Your task to perform on an android device: Search for sushi restaurants on Maps Image 0: 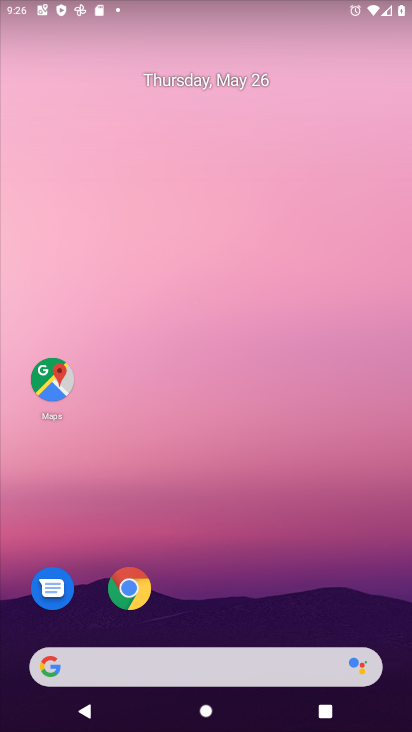
Step 0: drag from (355, 609) to (282, 54)
Your task to perform on an android device: Search for sushi restaurants on Maps Image 1: 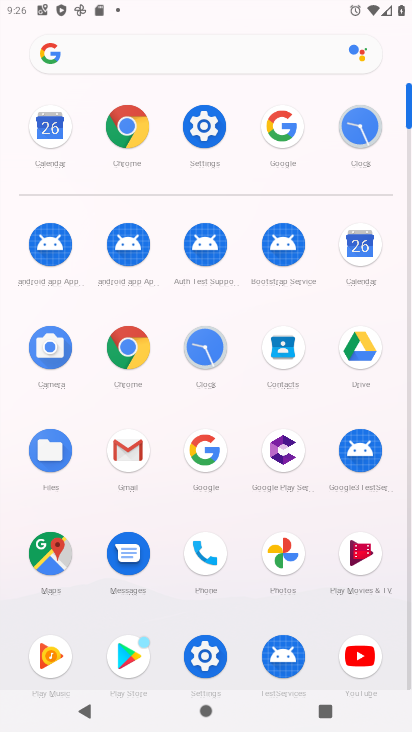
Step 1: click (46, 549)
Your task to perform on an android device: Search for sushi restaurants on Maps Image 2: 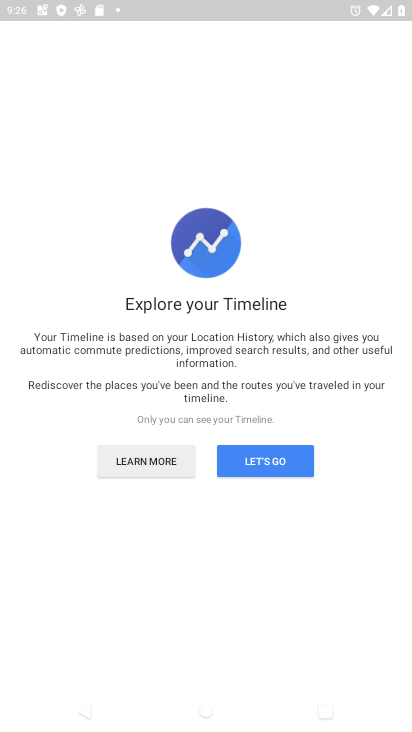
Step 2: press back button
Your task to perform on an android device: Search for sushi restaurants on Maps Image 3: 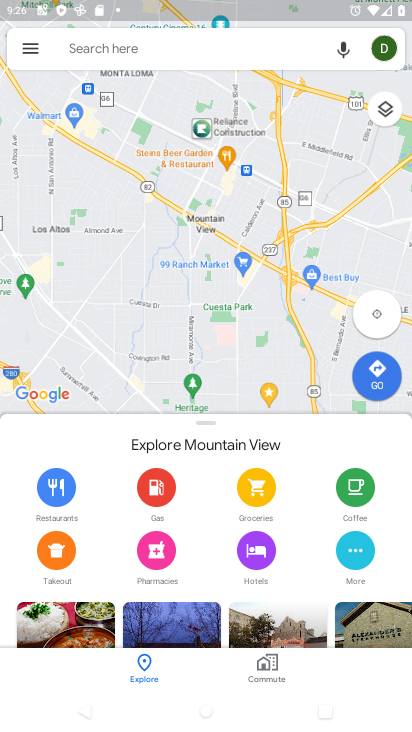
Step 3: click (117, 51)
Your task to perform on an android device: Search for sushi restaurants on Maps Image 4: 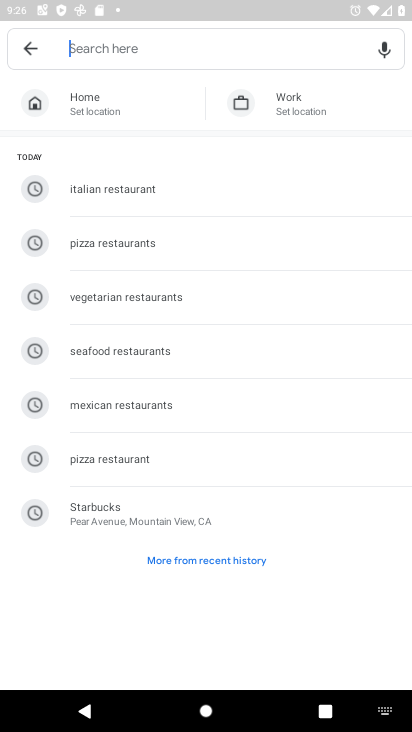
Step 4: click (181, 558)
Your task to perform on an android device: Search for sushi restaurants on Maps Image 5: 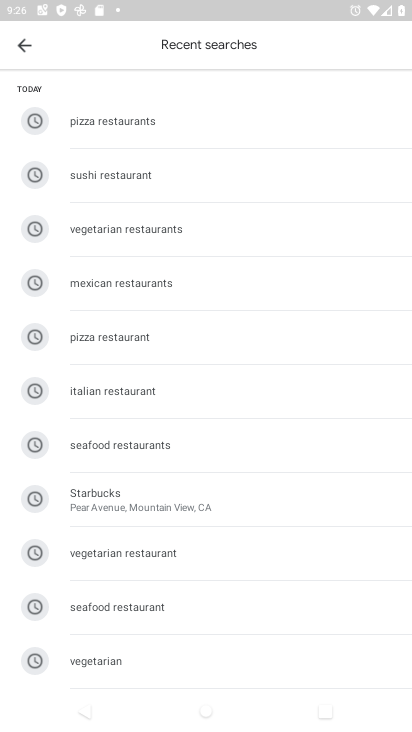
Step 5: drag from (136, 592) to (175, 460)
Your task to perform on an android device: Search for sushi restaurants on Maps Image 6: 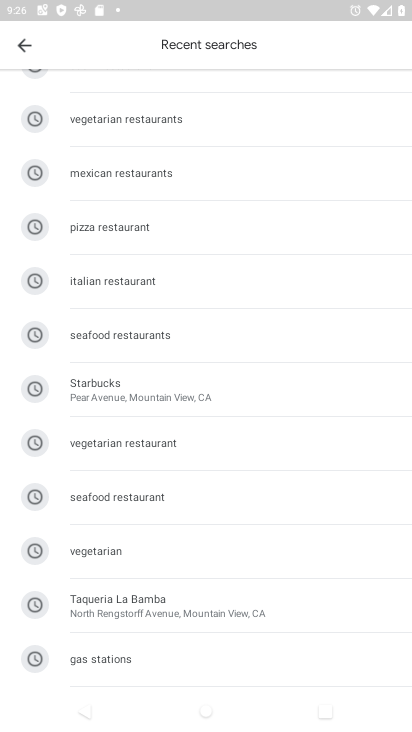
Step 6: drag from (197, 321) to (197, 202)
Your task to perform on an android device: Search for sushi restaurants on Maps Image 7: 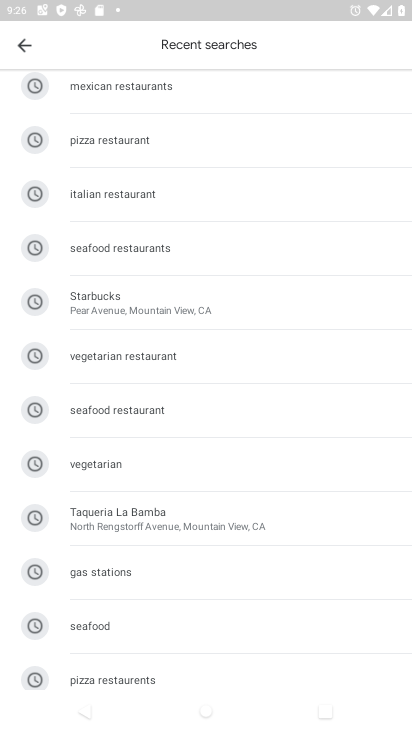
Step 7: drag from (100, 618) to (204, 219)
Your task to perform on an android device: Search for sushi restaurants on Maps Image 8: 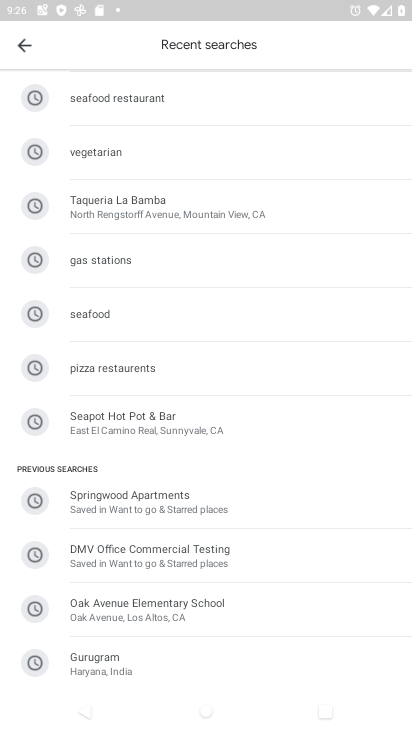
Step 8: drag from (191, 173) to (195, 691)
Your task to perform on an android device: Search for sushi restaurants on Maps Image 9: 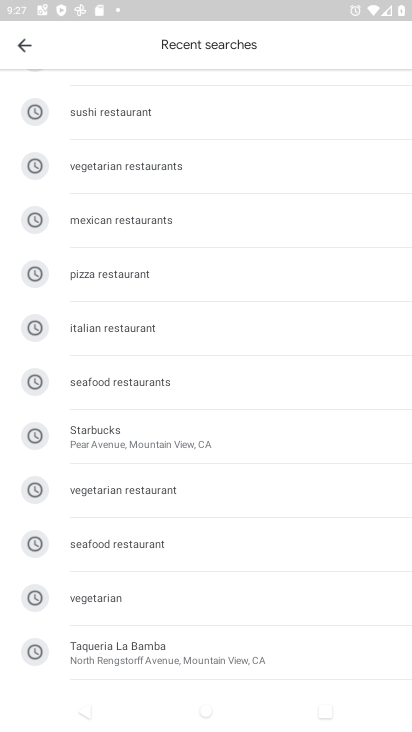
Step 9: drag from (191, 179) to (211, 536)
Your task to perform on an android device: Search for sushi restaurants on Maps Image 10: 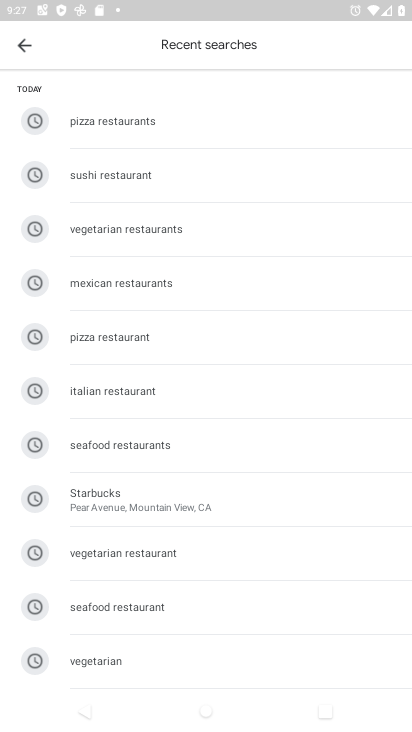
Step 10: click (160, 182)
Your task to perform on an android device: Search for sushi restaurants on Maps Image 11: 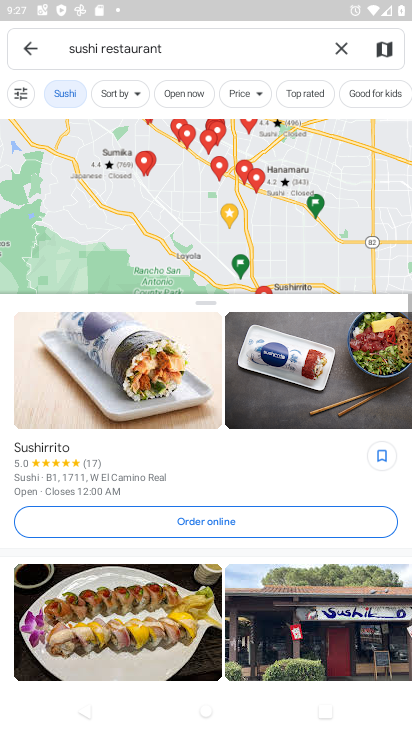
Step 11: task complete